Your task to perform on an android device: turn on the 12-hour format for clock Image 0: 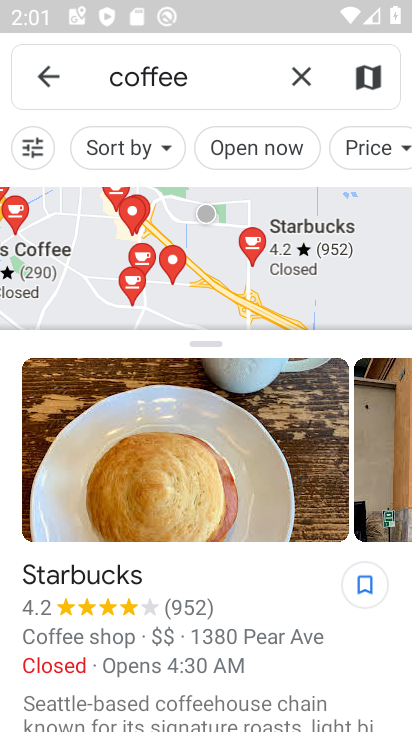
Step 0: press home button
Your task to perform on an android device: turn on the 12-hour format for clock Image 1: 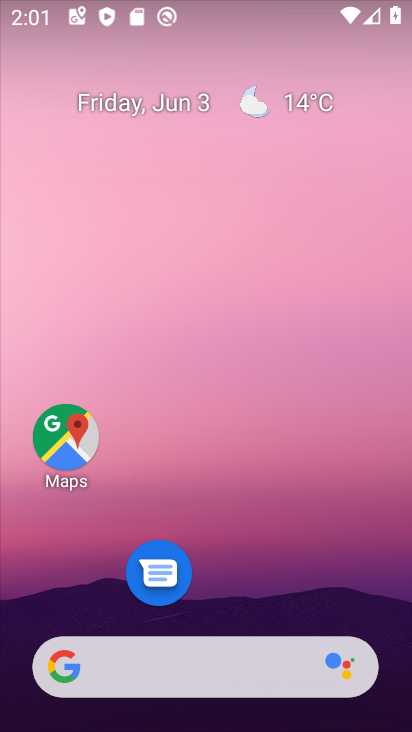
Step 1: drag from (307, 483) to (337, 32)
Your task to perform on an android device: turn on the 12-hour format for clock Image 2: 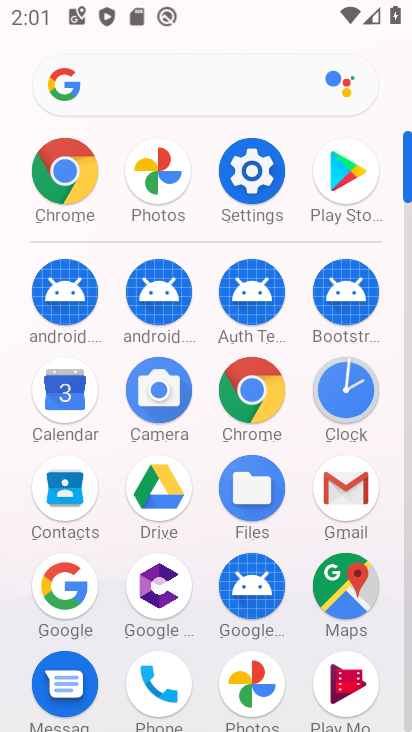
Step 2: click (326, 399)
Your task to perform on an android device: turn on the 12-hour format for clock Image 3: 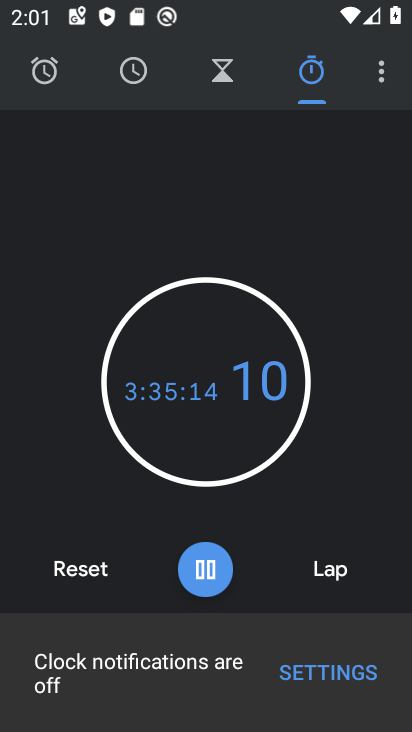
Step 3: click (378, 70)
Your task to perform on an android device: turn on the 12-hour format for clock Image 4: 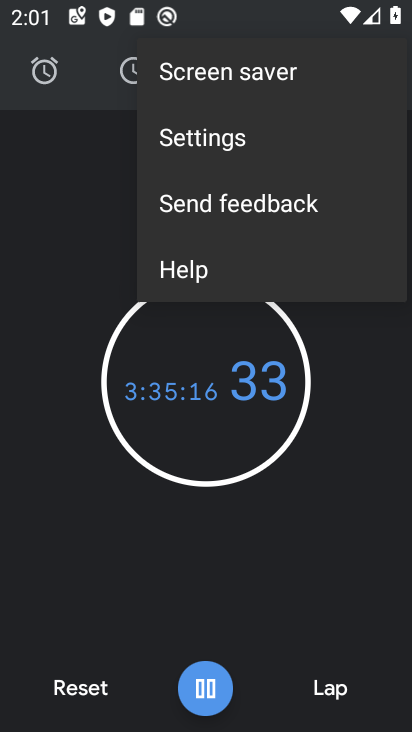
Step 4: click (230, 142)
Your task to perform on an android device: turn on the 12-hour format for clock Image 5: 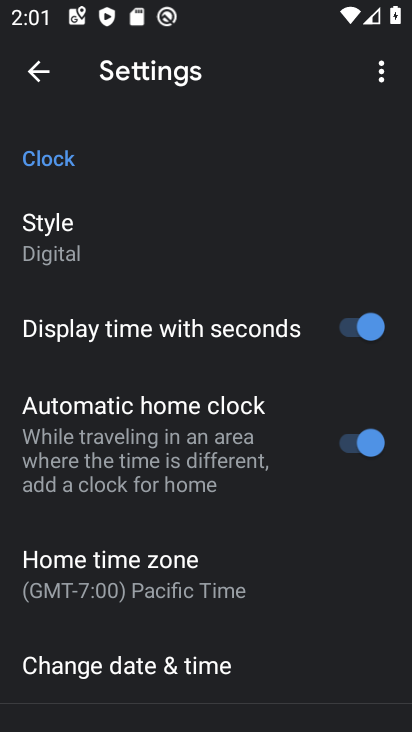
Step 5: drag from (280, 654) to (271, 378)
Your task to perform on an android device: turn on the 12-hour format for clock Image 6: 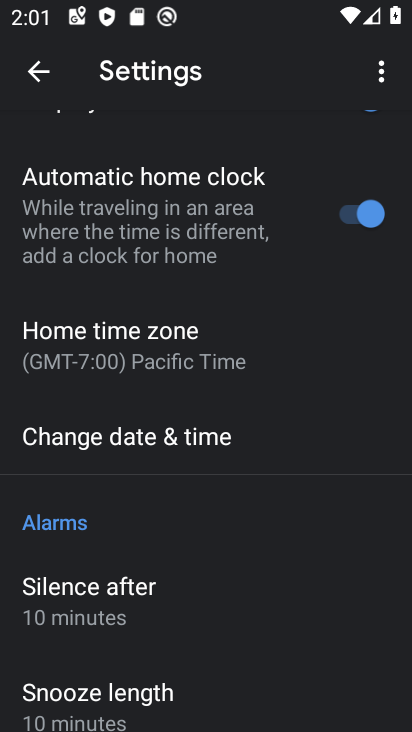
Step 6: click (231, 443)
Your task to perform on an android device: turn on the 12-hour format for clock Image 7: 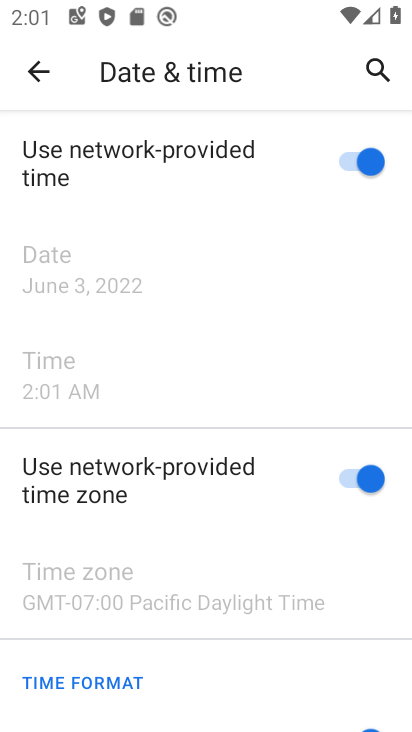
Step 7: drag from (259, 557) to (239, 258)
Your task to perform on an android device: turn on the 12-hour format for clock Image 8: 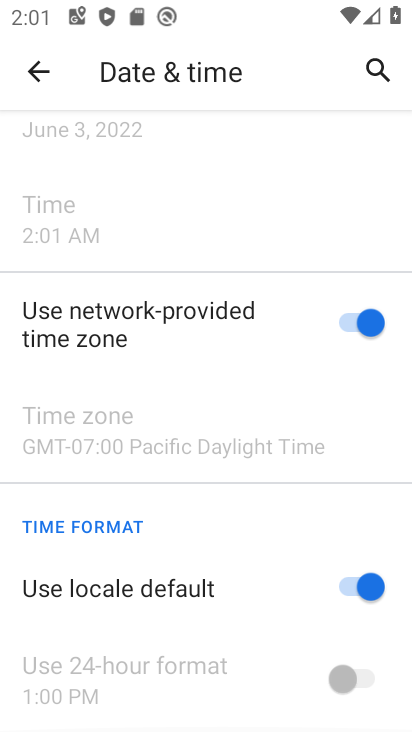
Step 8: drag from (239, 284) to (253, 600)
Your task to perform on an android device: turn on the 12-hour format for clock Image 9: 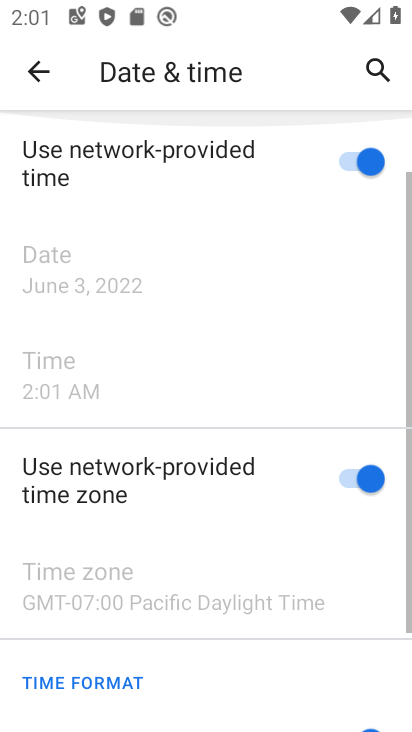
Step 9: drag from (271, 616) to (273, 177)
Your task to perform on an android device: turn on the 12-hour format for clock Image 10: 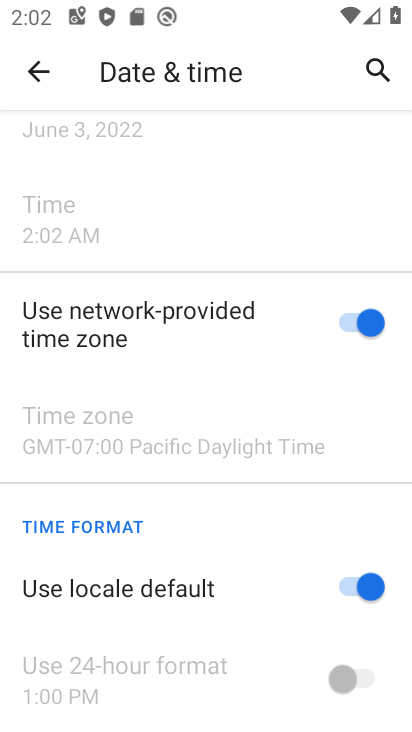
Step 10: click (347, 582)
Your task to perform on an android device: turn on the 12-hour format for clock Image 11: 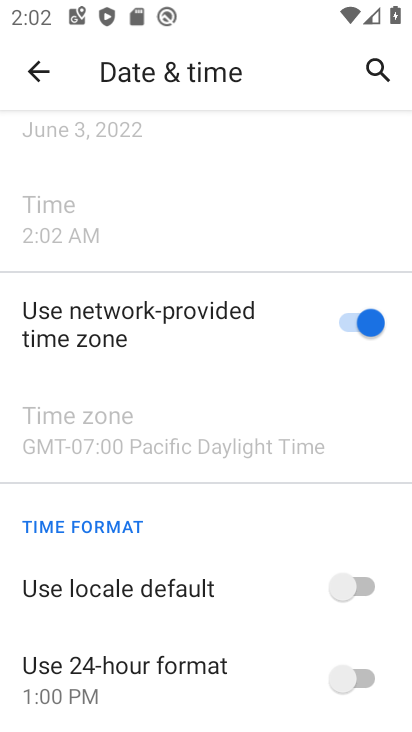
Step 11: task complete